Your task to perform on an android device: Open Google Maps Image 0: 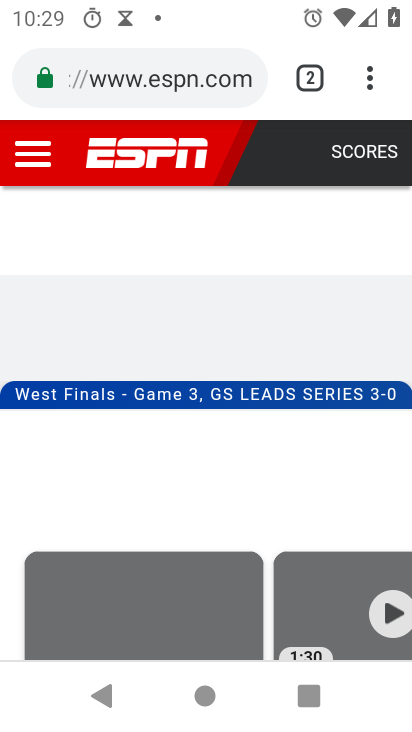
Step 0: press home button
Your task to perform on an android device: Open Google Maps Image 1: 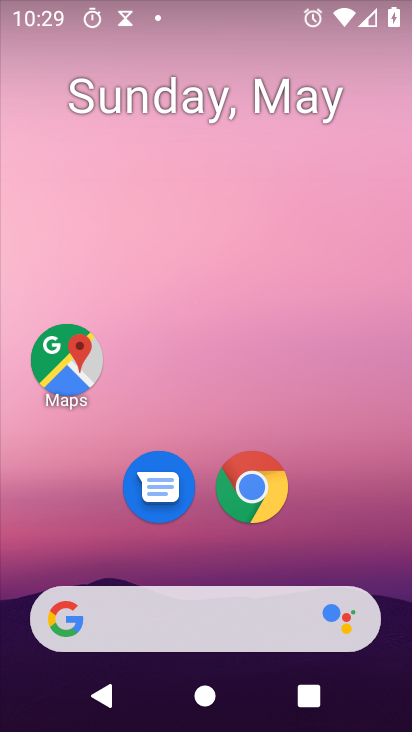
Step 1: click (51, 350)
Your task to perform on an android device: Open Google Maps Image 2: 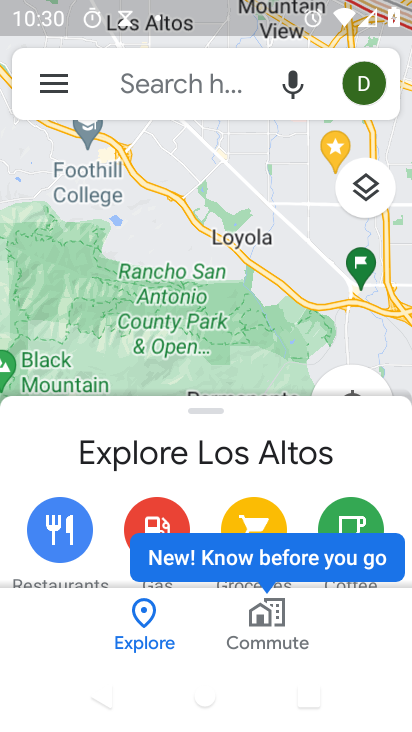
Step 2: task complete